Your task to perform on an android device: open app "LiveIn - Share Your Moment" (install if not already installed) Image 0: 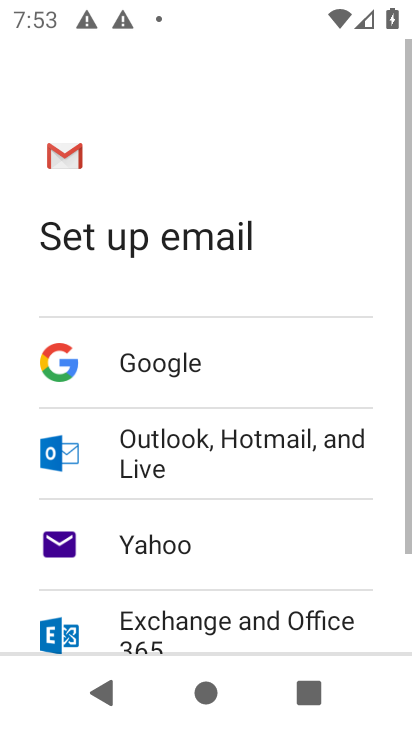
Step 0: press home button
Your task to perform on an android device: open app "LiveIn - Share Your Moment" (install if not already installed) Image 1: 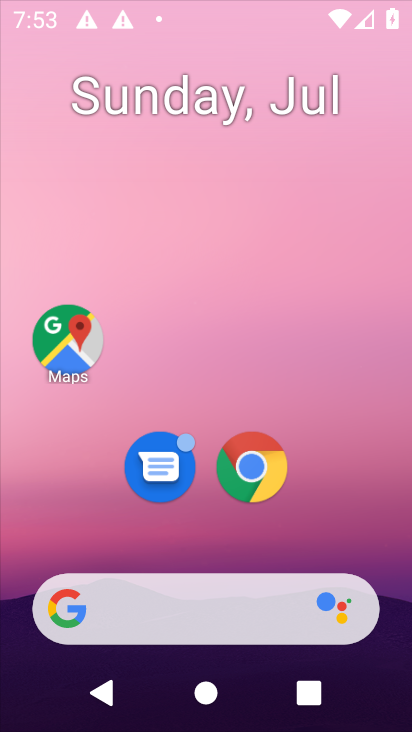
Step 1: drag from (185, 616) to (276, 66)
Your task to perform on an android device: open app "LiveIn - Share Your Moment" (install if not already installed) Image 2: 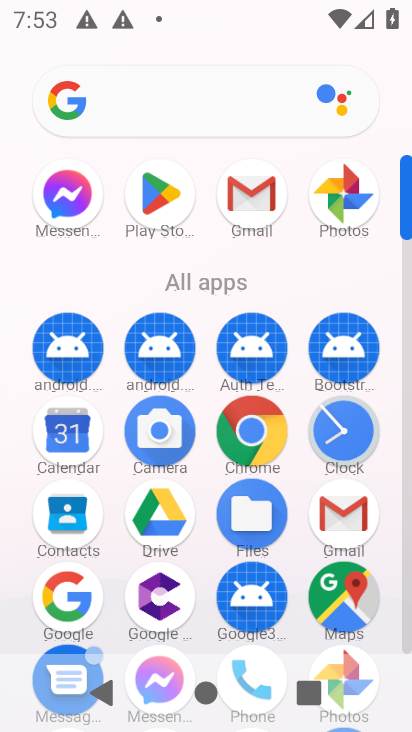
Step 2: drag from (206, 615) to (203, 198)
Your task to perform on an android device: open app "LiveIn - Share Your Moment" (install if not already installed) Image 3: 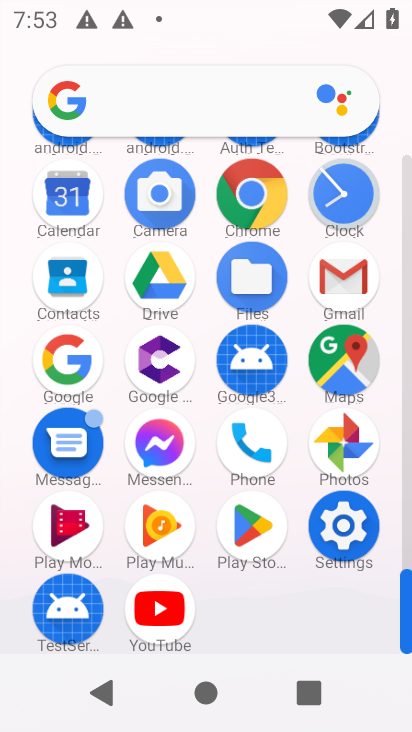
Step 3: click (237, 527)
Your task to perform on an android device: open app "LiveIn - Share Your Moment" (install if not already installed) Image 4: 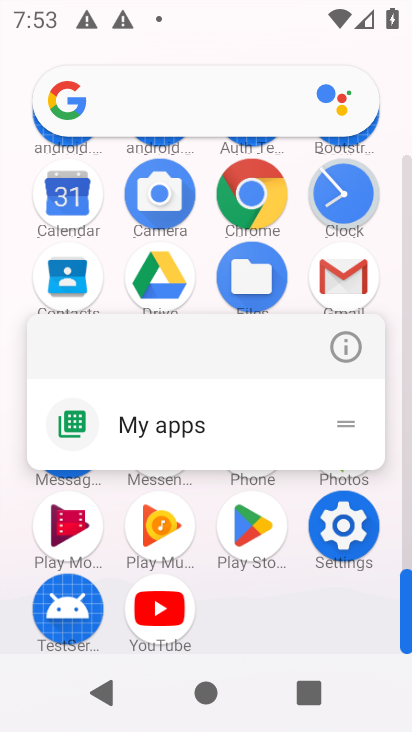
Step 4: click (351, 355)
Your task to perform on an android device: open app "LiveIn - Share Your Moment" (install if not already installed) Image 5: 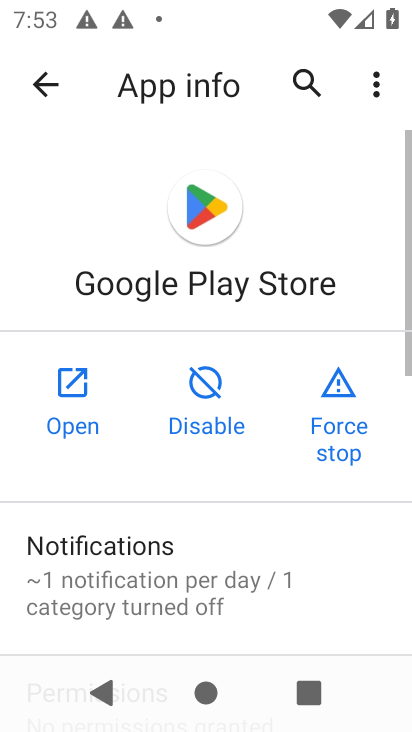
Step 5: click (63, 401)
Your task to perform on an android device: open app "LiveIn - Share Your Moment" (install if not already installed) Image 6: 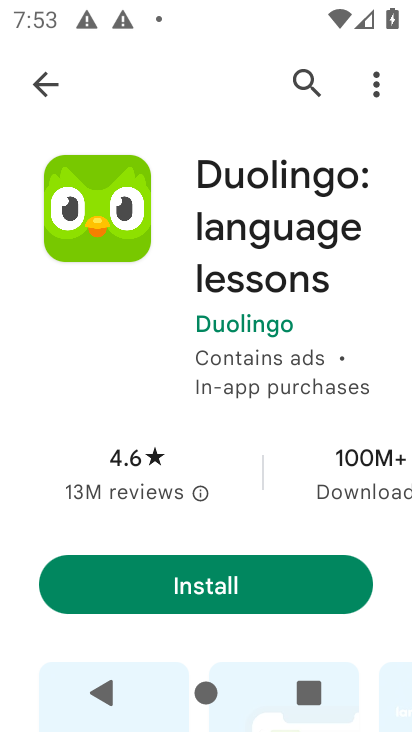
Step 6: click (302, 85)
Your task to perform on an android device: open app "LiveIn - Share Your Moment" (install if not already installed) Image 7: 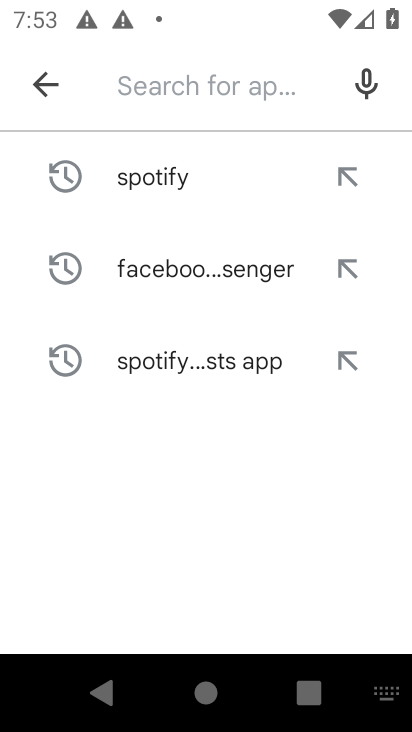
Step 7: type "LiveIn - Share Your Moment"
Your task to perform on an android device: open app "LiveIn - Share Your Moment" (install if not already installed) Image 8: 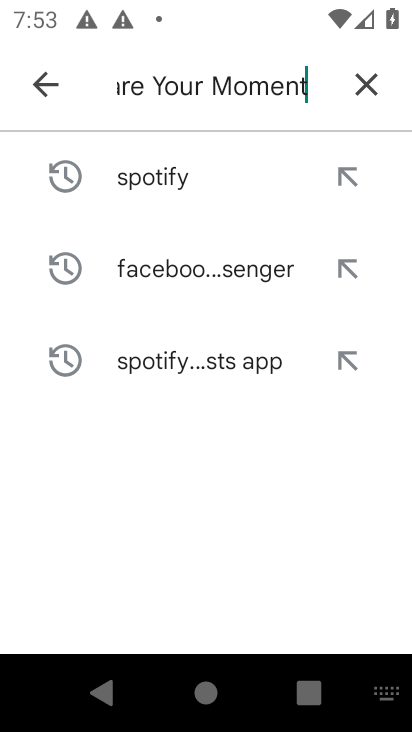
Step 8: type ""
Your task to perform on an android device: open app "LiveIn - Share Your Moment" (install if not already installed) Image 9: 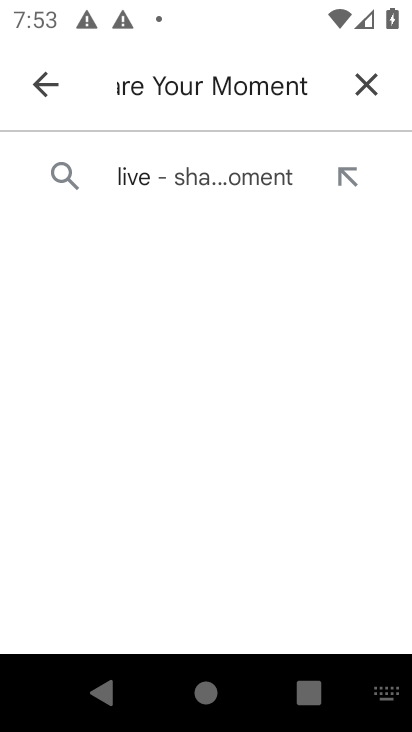
Step 9: click (138, 179)
Your task to perform on an android device: open app "LiveIn - Share Your Moment" (install if not already installed) Image 10: 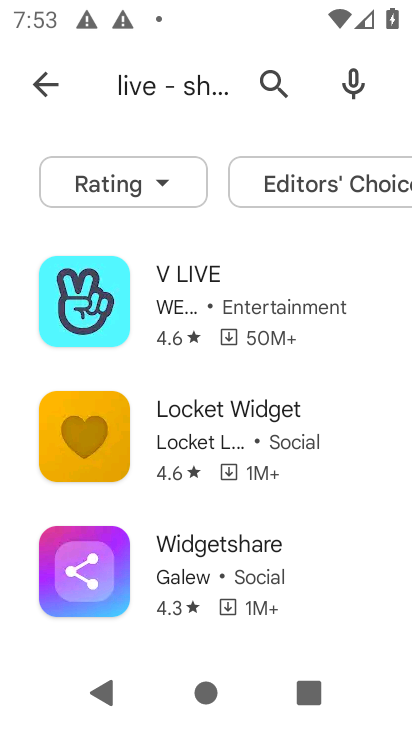
Step 10: task complete